Your task to perform on an android device: Go to ESPN.com Image 0: 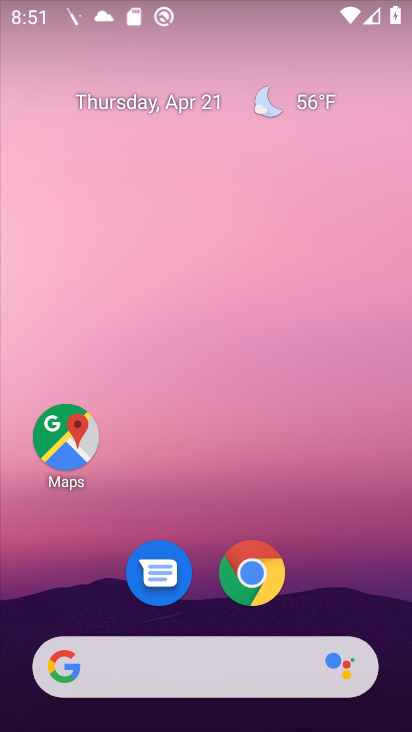
Step 0: click (253, 571)
Your task to perform on an android device: Go to ESPN.com Image 1: 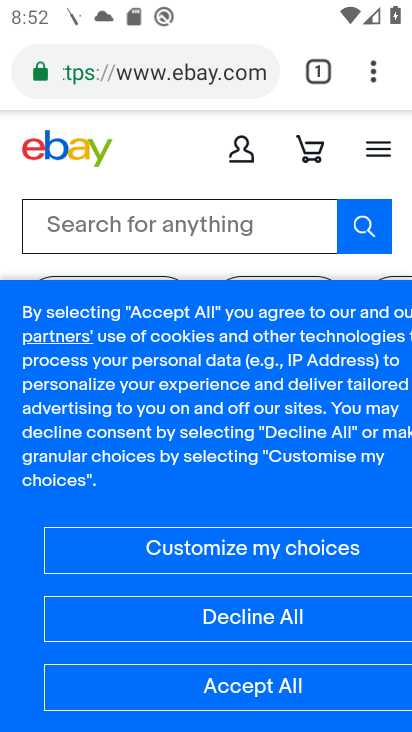
Step 1: click (260, 76)
Your task to perform on an android device: Go to ESPN.com Image 2: 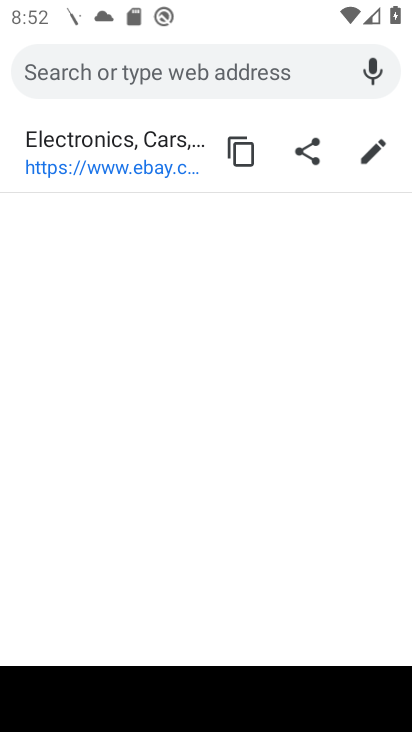
Step 2: click (267, 76)
Your task to perform on an android device: Go to ESPN.com Image 3: 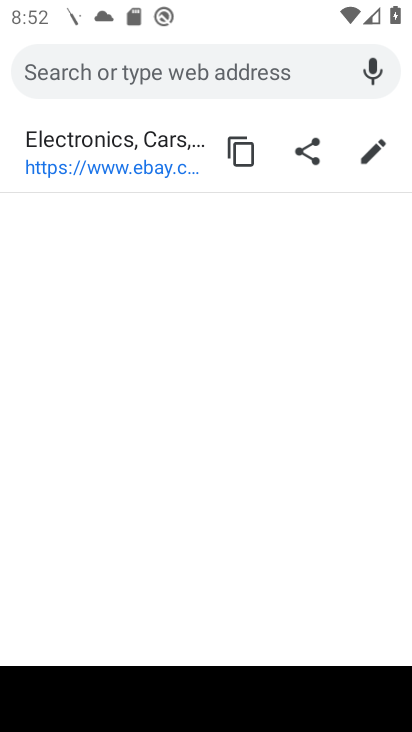
Step 3: type "ESPN.com"
Your task to perform on an android device: Go to ESPN.com Image 4: 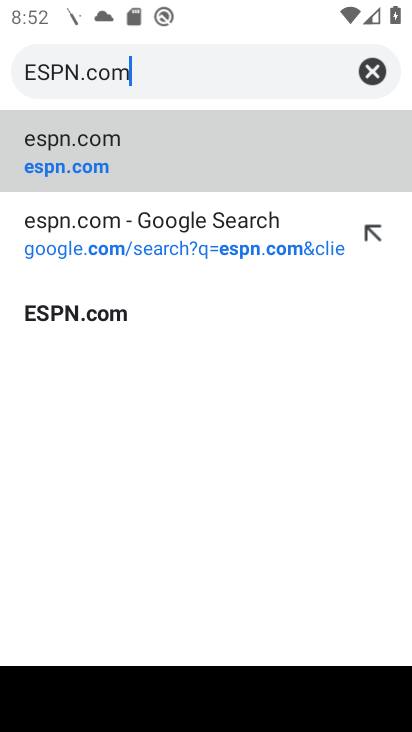
Step 4: click (113, 319)
Your task to perform on an android device: Go to ESPN.com Image 5: 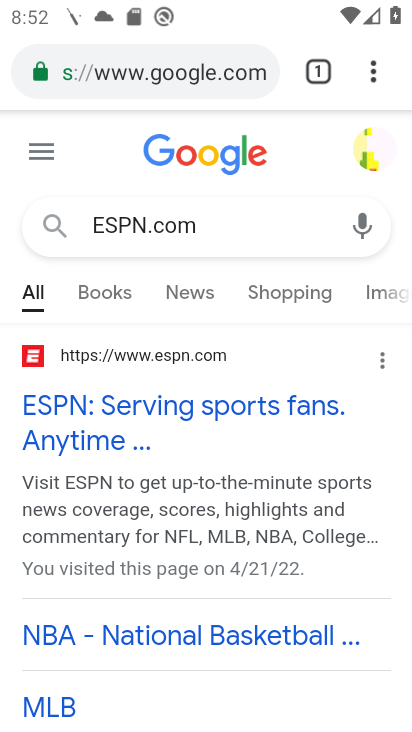
Step 5: task complete